Your task to perform on an android device: Search for "logitech g pro" on newegg, select the first entry, add it to the cart, then select checkout. Image 0: 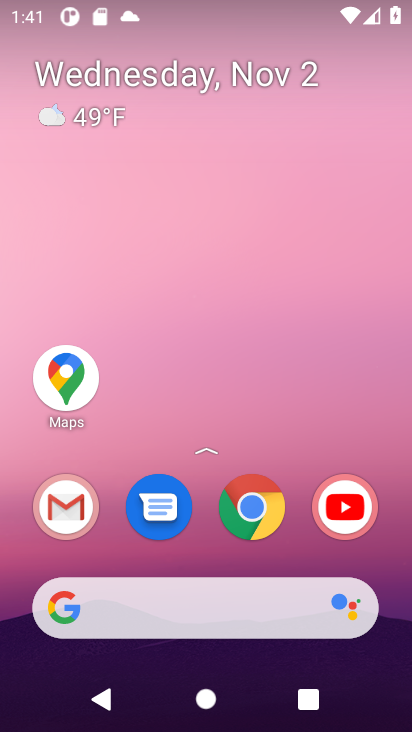
Step 0: click (125, 622)
Your task to perform on an android device: Search for "logitech g pro" on newegg, select the first entry, add it to the cart, then select checkout. Image 1: 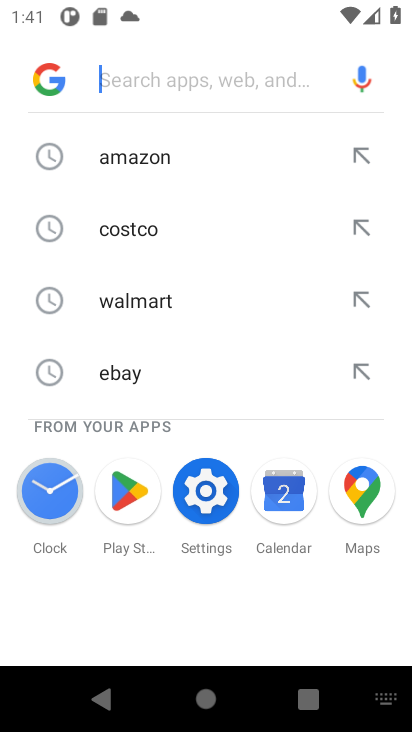
Step 1: type "newegg"
Your task to perform on an android device: Search for "logitech g pro" on newegg, select the first entry, add it to the cart, then select checkout. Image 2: 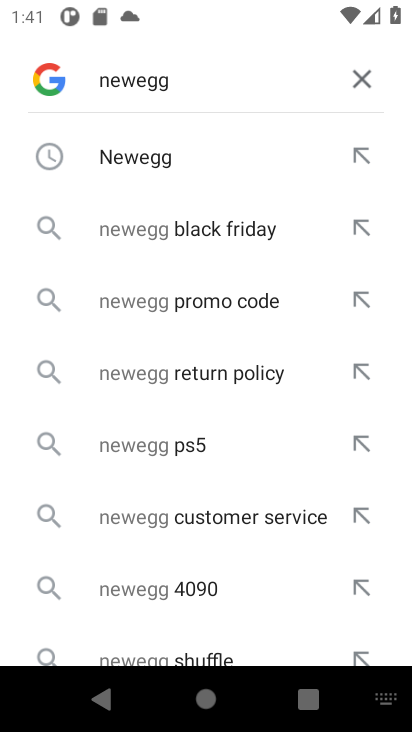
Step 2: type ""
Your task to perform on an android device: Search for "logitech g pro" on newegg, select the first entry, add it to the cart, then select checkout. Image 3: 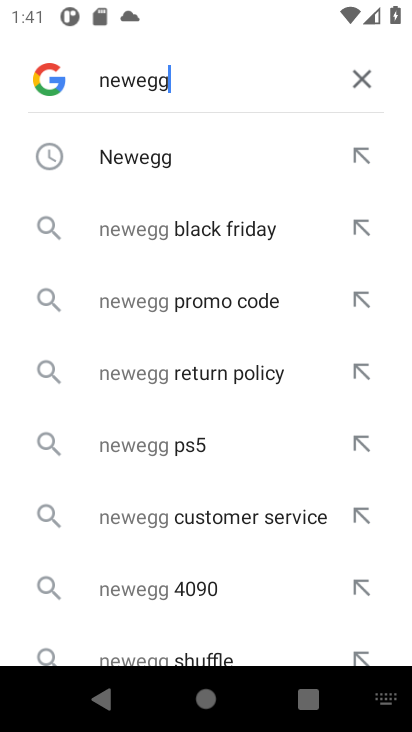
Step 3: click (135, 149)
Your task to perform on an android device: Search for "logitech g pro" on newegg, select the first entry, add it to the cart, then select checkout. Image 4: 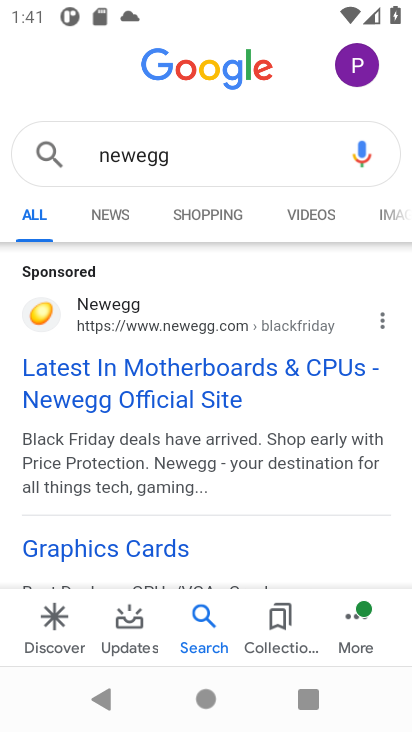
Step 4: click (118, 364)
Your task to perform on an android device: Search for "logitech g pro" on newegg, select the first entry, add it to the cart, then select checkout. Image 5: 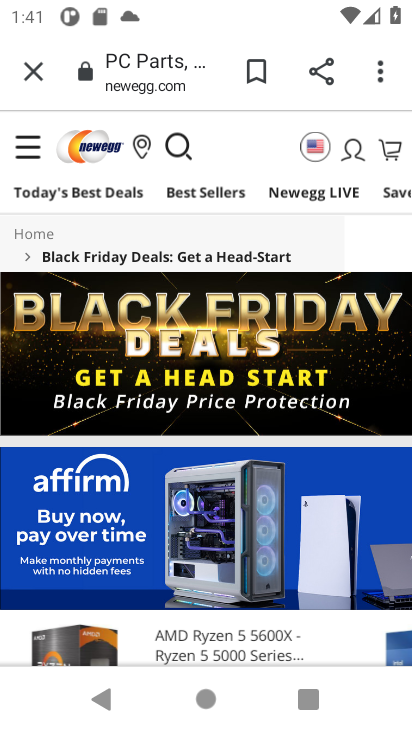
Step 5: click (167, 145)
Your task to perform on an android device: Search for "logitech g pro" on newegg, select the first entry, add it to the cart, then select checkout. Image 6: 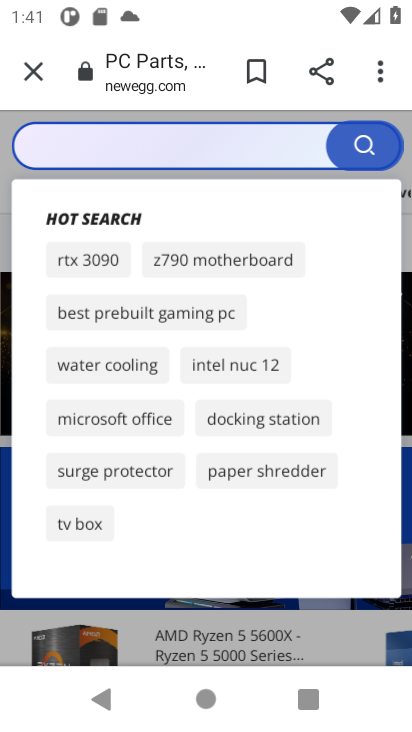
Step 6: type "logitech g pro"
Your task to perform on an android device: Search for "logitech g pro" on newegg, select the first entry, add it to the cart, then select checkout. Image 7: 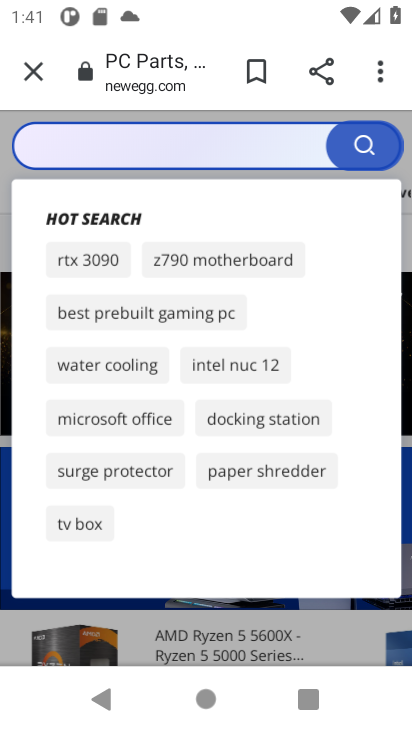
Step 7: click (184, 143)
Your task to perform on an android device: Search for "logitech g pro" on newegg, select the first entry, add it to the cart, then select checkout. Image 8: 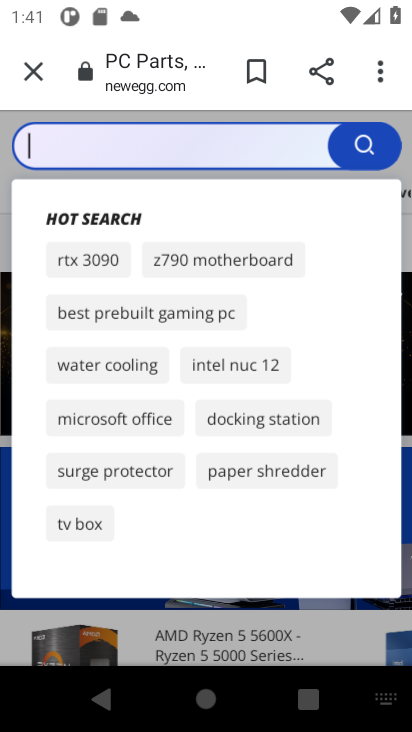
Step 8: type "logitech g pro"
Your task to perform on an android device: Search for "logitech g pro" on newegg, select the first entry, add it to the cart, then select checkout. Image 9: 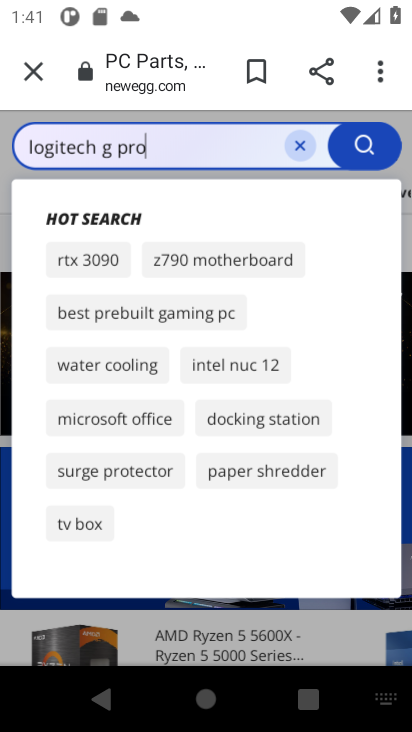
Step 9: type ""
Your task to perform on an android device: Search for "logitech g pro" on newegg, select the first entry, add it to the cart, then select checkout. Image 10: 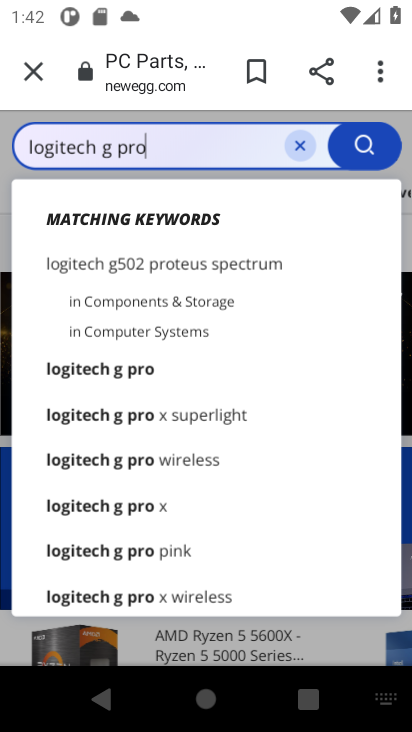
Step 10: click (162, 369)
Your task to perform on an android device: Search for "logitech g pro" on newegg, select the first entry, add it to the cart, then select checkout. Image 11: 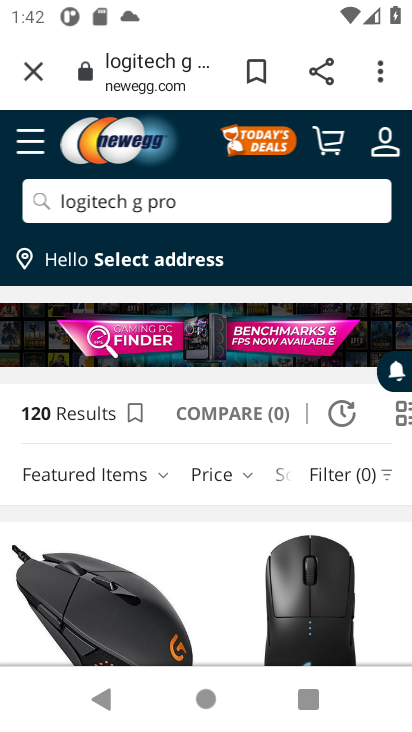
Step 11: drag from (241, 537) to (219, 236)
Your task to perform on an android device: Search for "logitech g pro" on newegg, select the first entry, add it to the cart, then select checkout. Image 12: 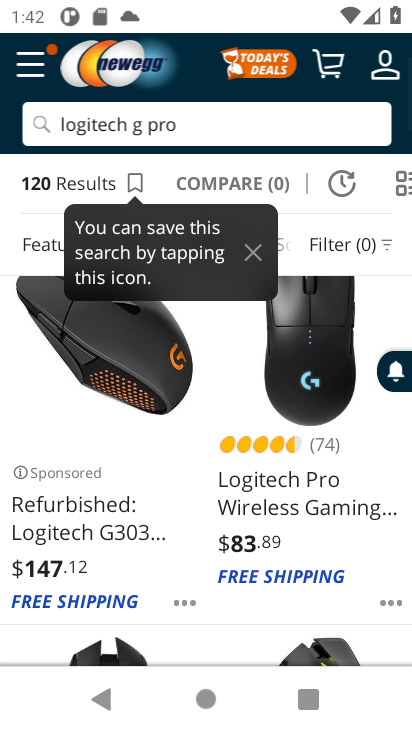
Step 12: drag from (163, 531) to (175, 451)
Your task to perform on an android device: Search for "logitech g pro" on newegg, select the first entry, add it to the cart, then select checkout. Image 13: 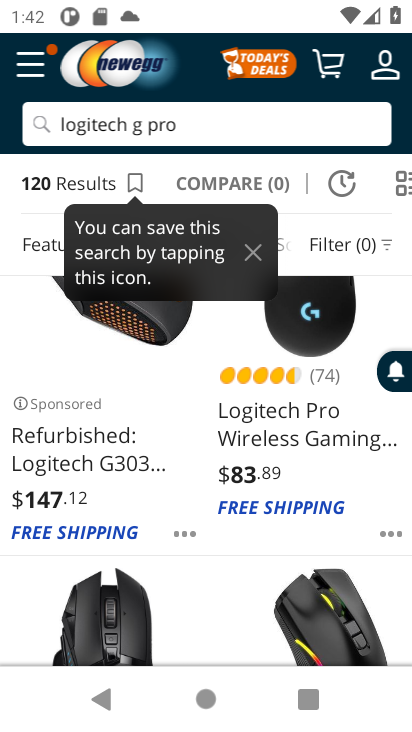
Step 13: click (124, 348)
Your task to perform on an android device: Search for "logitech g pro" on newegg, select the first entry, add it to the cart, then select checkout. Image 14: 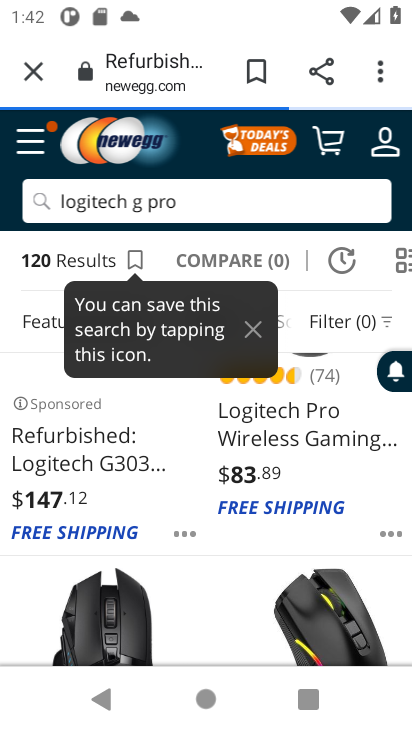
Step 14: click (298, 420)
Your task to perform on an android device: Search for "logitech g pro" on newegg, select the first entry, add it to the cart, then select checkout. Image 15: 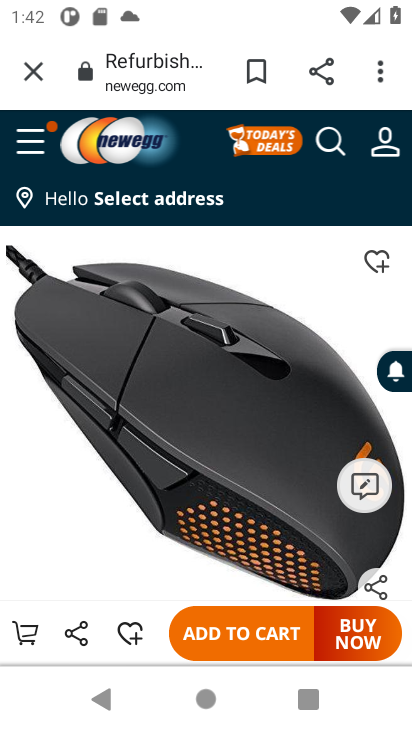
Step 15: drag from (227, 482) to (236, 371)
Your task to perform on an android device: Search for "logitech g pro" on newegg, select the first entry, add it to the cart, then select checkout. Image 16: 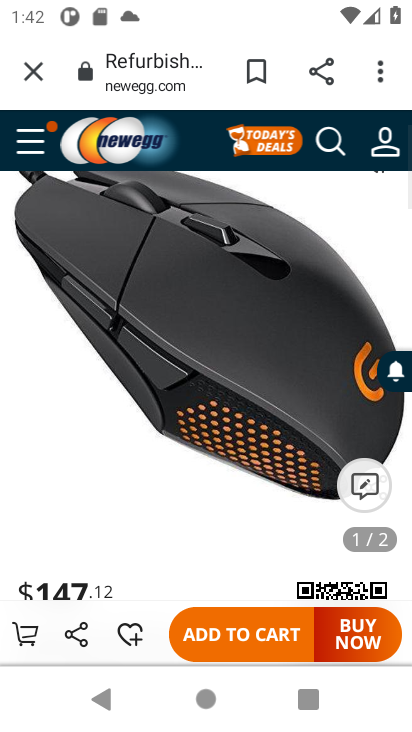
Step 16: click (225, 632)
Your task to perform on an android device: Search for "logitech g pro" on newegg, select the first entry, add it to the cart, then select checkout. Image 17: 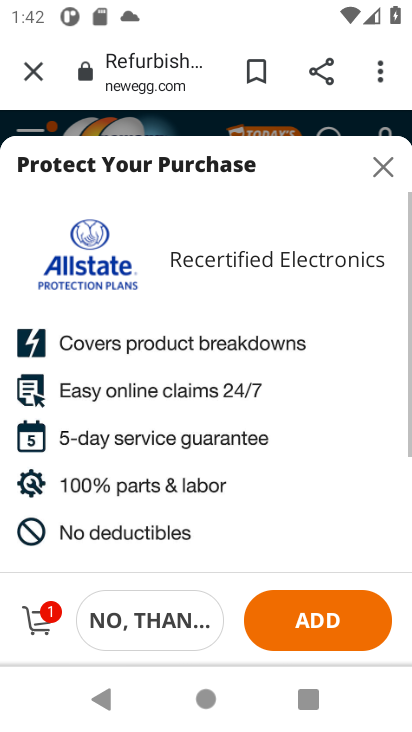
Step 17: click (33, 627)
Your task to perform on an android device: Search for "logitech g pro" on newegg, select the first entry, add it to the cart, then select checkout. Image 18: 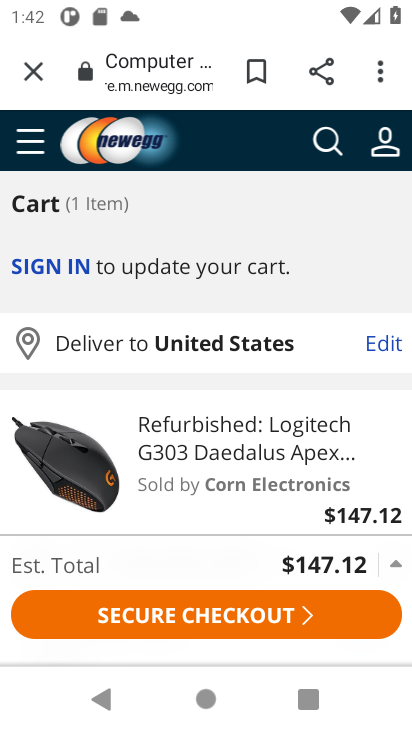
Step 18: click (196, 609)
Your task to perform on an android device: Search for "logitech g pro" on newegg, select the first entry, add it to the cart, then select checkout. Image 19: 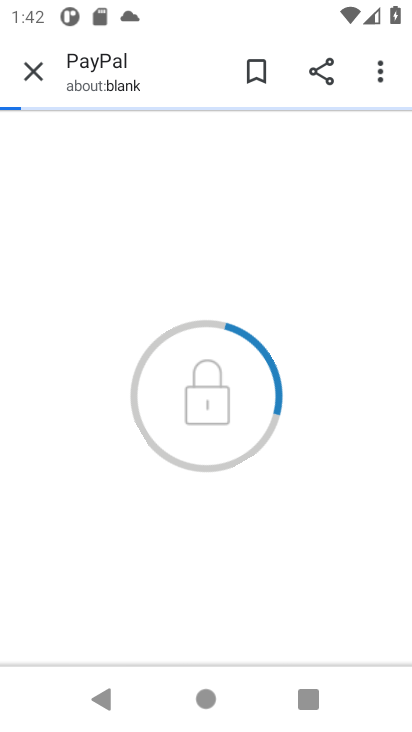
Step 19: task complete